Your task to perform on an android device: Open Chrome and go to the settings page Image 0: 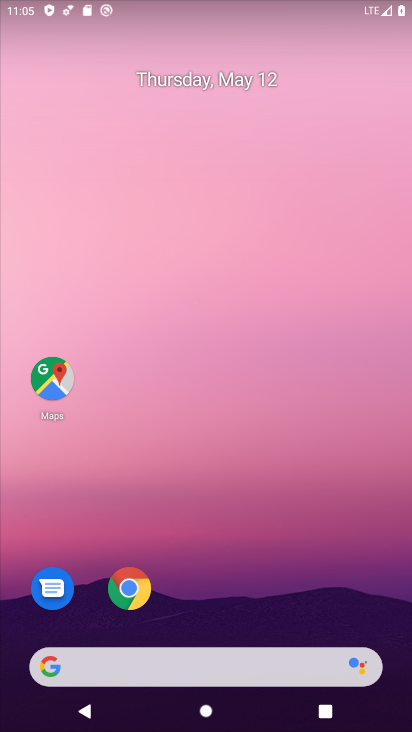
Step 0: drag from (281, 585) to (277, 107)
Your task to perform on an android device: Open Chrome and go to the settings page Image 1: 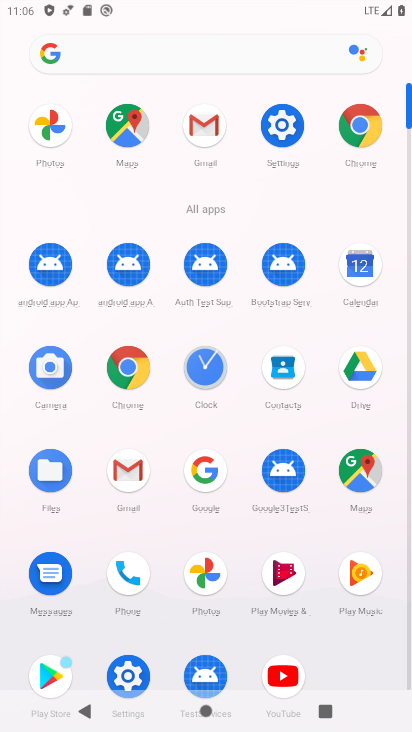
Step 1: click (374, 116)
Your task to perform on an android device: Open Chrome and go to the settings page Image 2: 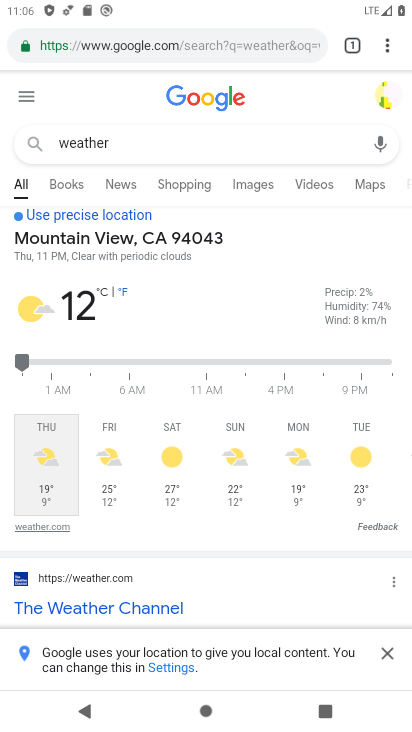
Step 2: click (377, 38)
Your task to perform on an android device: Open Chrome and go to the settings page Image 3: 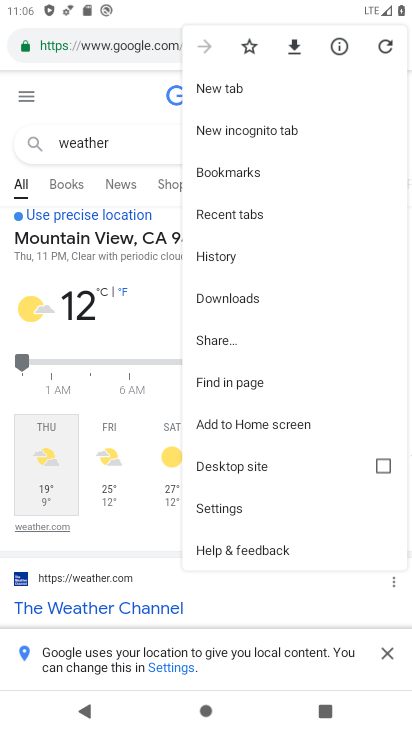
Step 3: drag from (260, 481) to (315, 144)
Your task to perform on an android device: Open Chrome and go to the settings page Image 4: 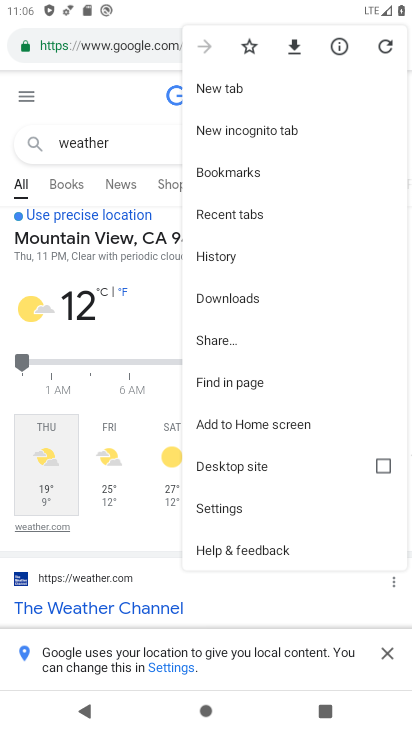
Step 4: click (227, 511)
Your task to perform on an android device: Open Chrome and go to the settings page Image 5: 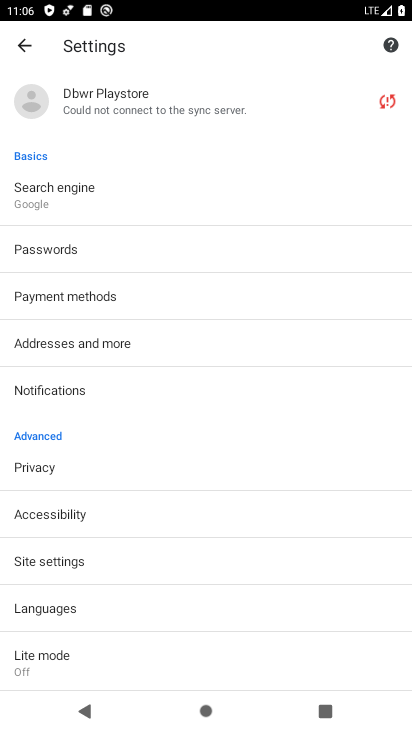
Step 5: task complete